Your task to perform on an android device: turn off picture-in-picture Image 0: 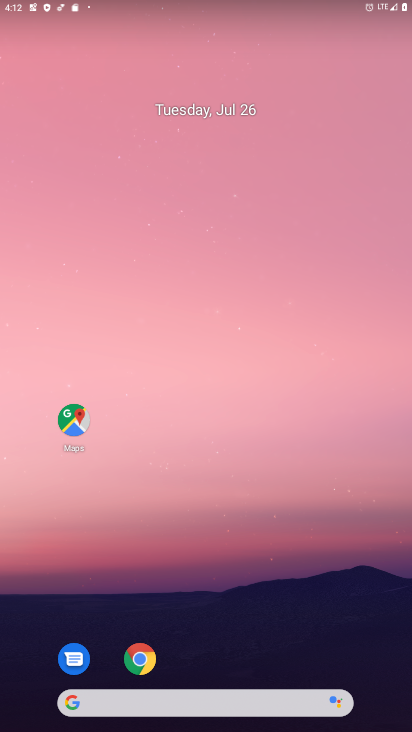
Step 0: press home button
Your task to perform on an android device: turn off picture-in-picture Image 1: 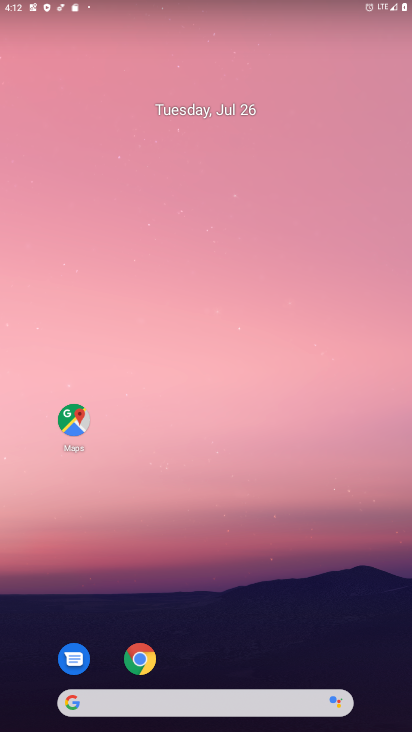
Step 1: click (138, 661)
Your task to perform on an android device: turn off picture-in-picture Image 2: 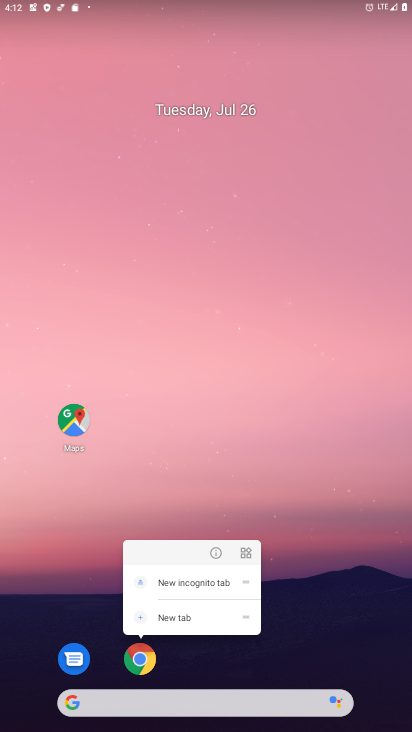
Step 2: click (215, 557)
Your task to perform on an android device: turn off picture-in-picture Image 3: 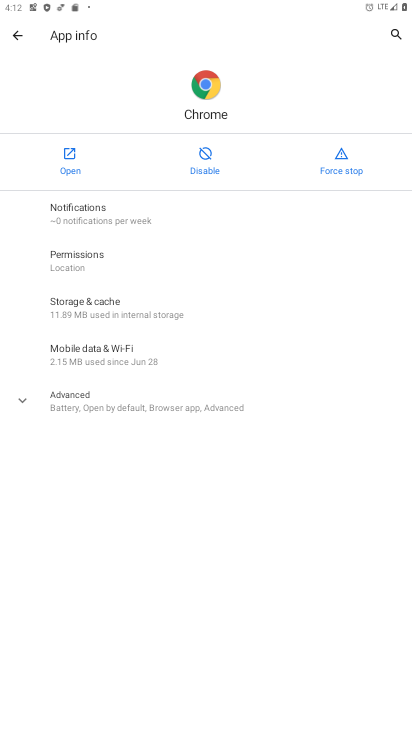
Step 3: click (98, 406)
Your task to perform on an android device: turn off picture-in-picture Image 4: 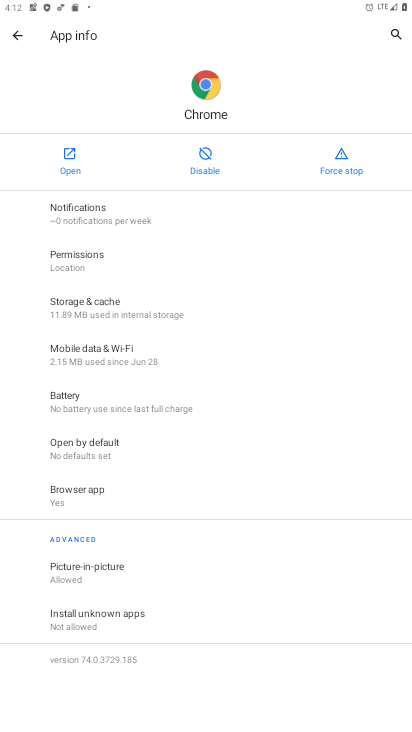
Step 4: click (71, 569)
Your task to perform on an android device: turn off picture-in-picture Image 5: 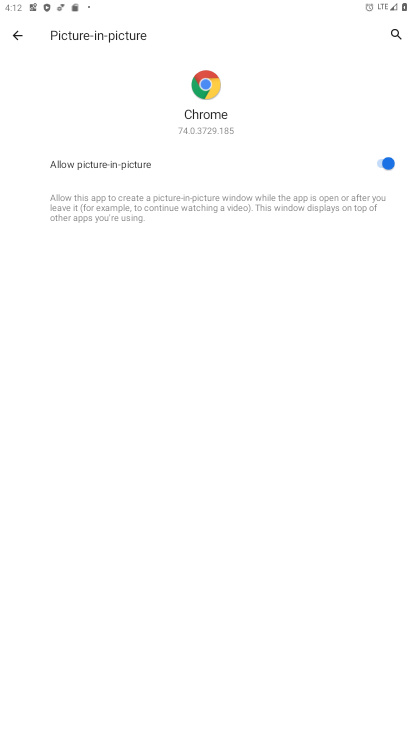
Step 5: click (387, 168)
Your task to perform on an android device: turn off picture-in-picture Image 6: 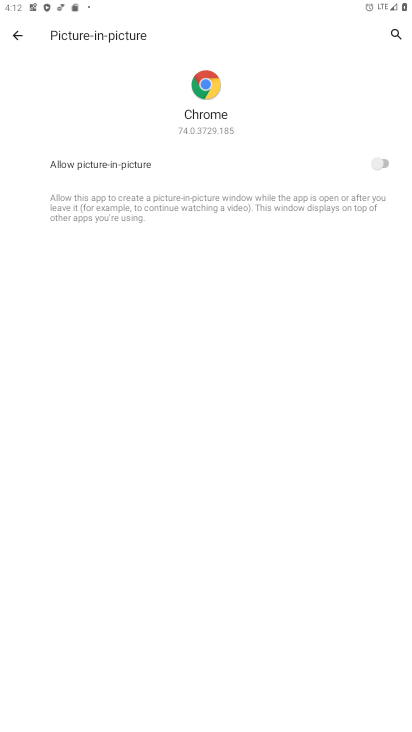
Step 6: task complete